Your task to perform on an android device: visit the assistant section in the google photos Image 0: 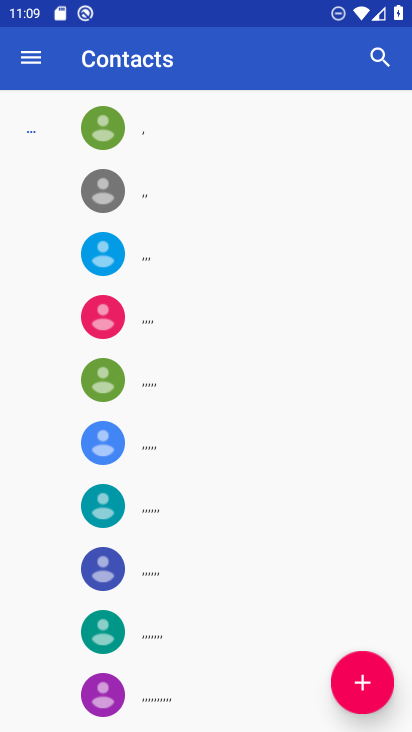
Step 0: press back button
Your task to perform on an android device: visit the assistant section in the google photos Image 1: 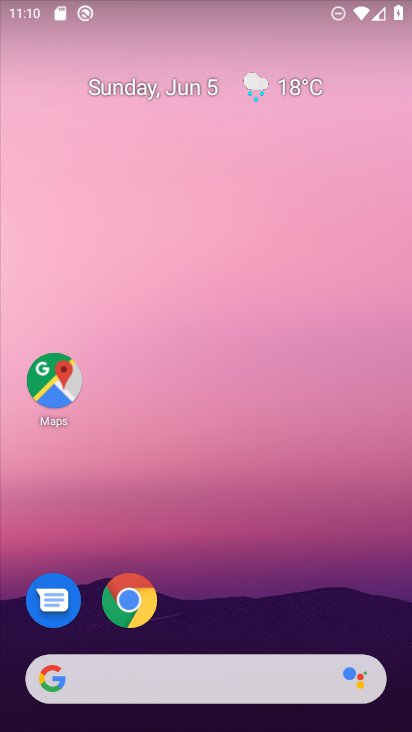
Step 1: drag from (222, 614) to (231, 9)
Your task to perform on an android device: visit the assistant section in the google photos Image 2: 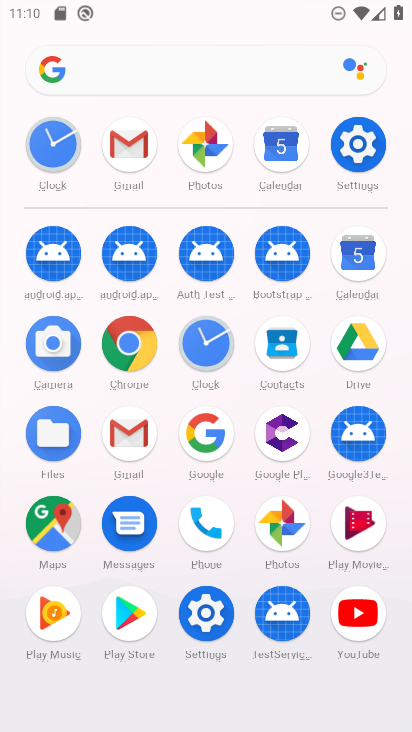
Step 2: click (286, 524)
Your task to perform on an android device: visit the assistant section in the google photos Image 3: 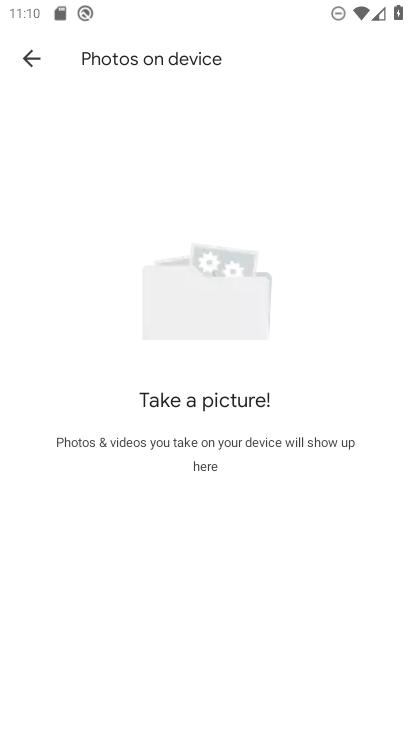
Step 3: click (19, 55)
Your task to perform on an android device: visit the assistant section in the google photos Image 4: 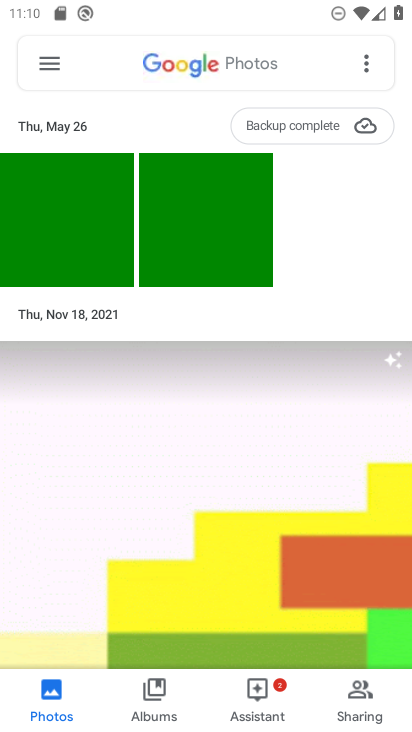
Step 4: click (257, 716)
Your task to perform on an android device: visit the assistant section in the google photos Image 5: 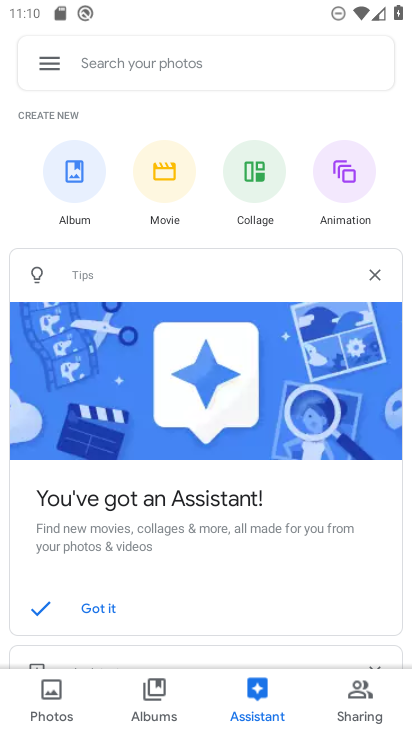
Step 5: task complete